Your task to perform on an android device: Go to location settings Image 0: 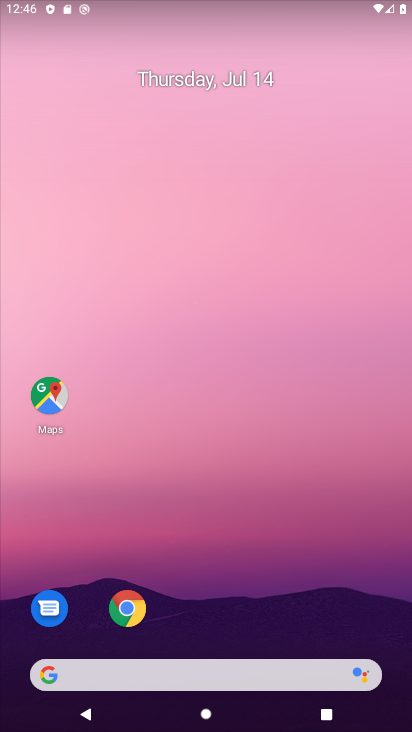
Step 0: drag from (334, 558) to (296, 8)
Your task to perform on an android device: Go to location settings Image 1: 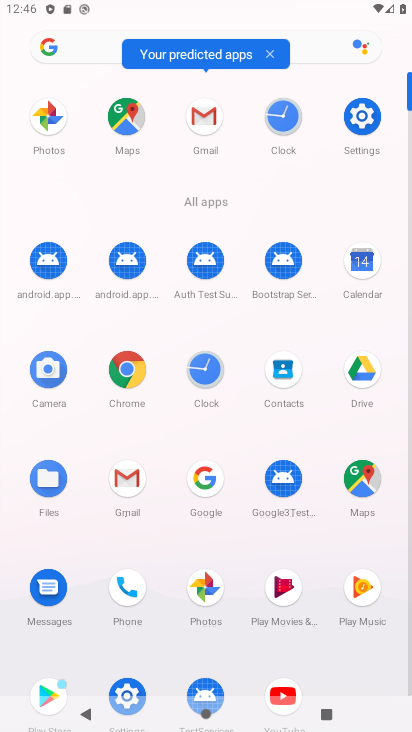
Step 1: drag from (158, 663) to (147, 345)
Your task to perform on an android device: Go to location settings Image 2: 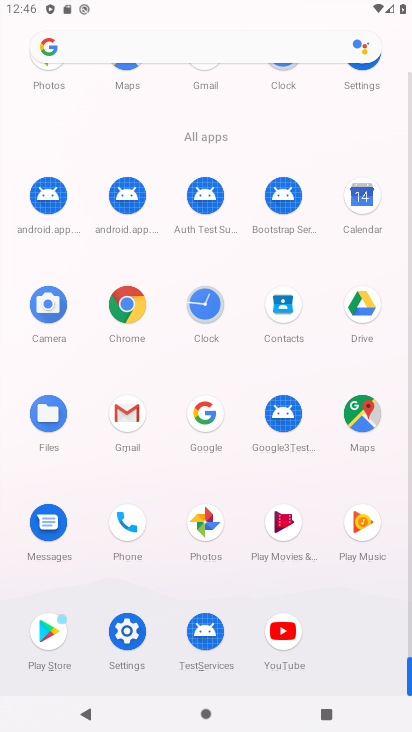
Step 2: click (127, 633)
Your task to perform on an android device: Go to location settings Image 3: 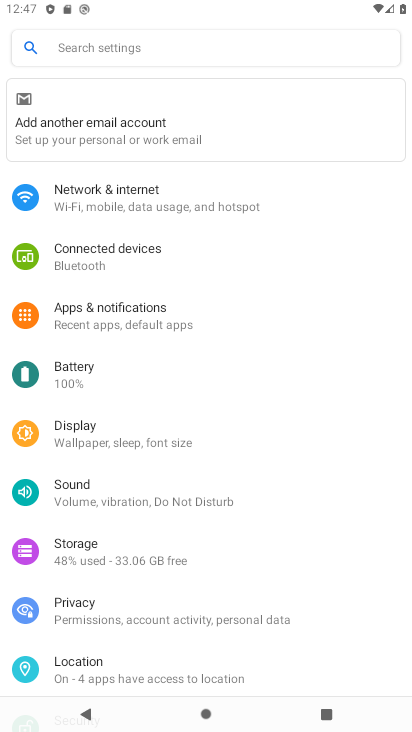
Step 3: drag from (151, 618) to (173, 313)
Your task to perform on an android device: Go to location settings Image 4: 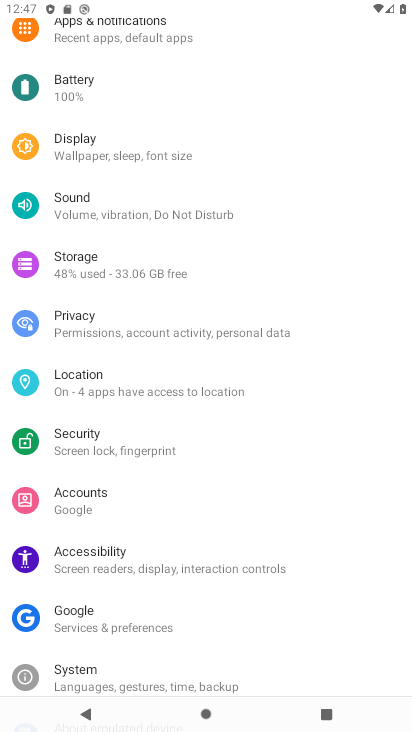
Step 4: click (71, 385)
Your task to perform on an android device: Go to location settings Image 5: 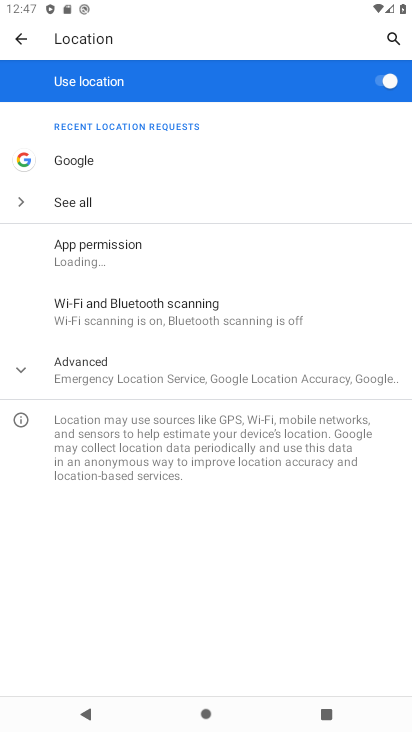
Step 5: click (26, 367)
Your task to perform on an android device: Go to location settings Image 6: 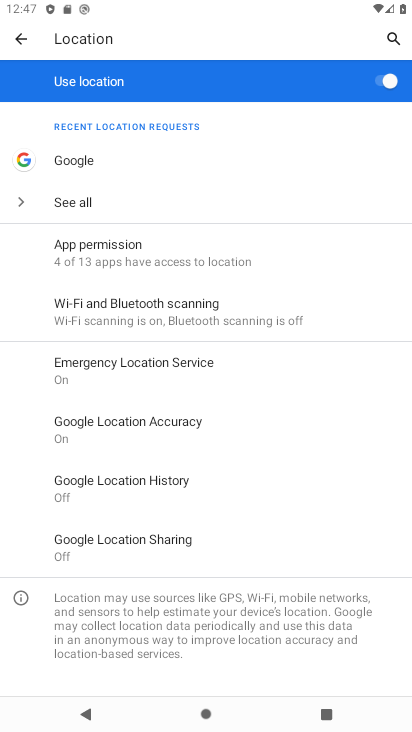
Step 6: task complete